Your task to perform on an android device: Open notification settings Image 0: 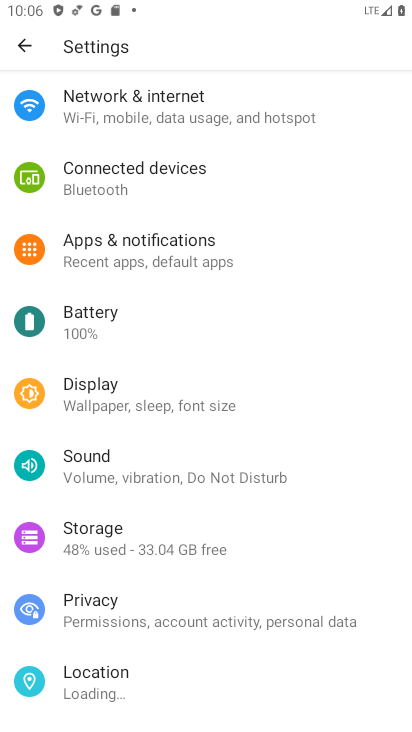
Step 0: click (215, 257)
Your task to perform on an android device: Open notification settings Image 1: 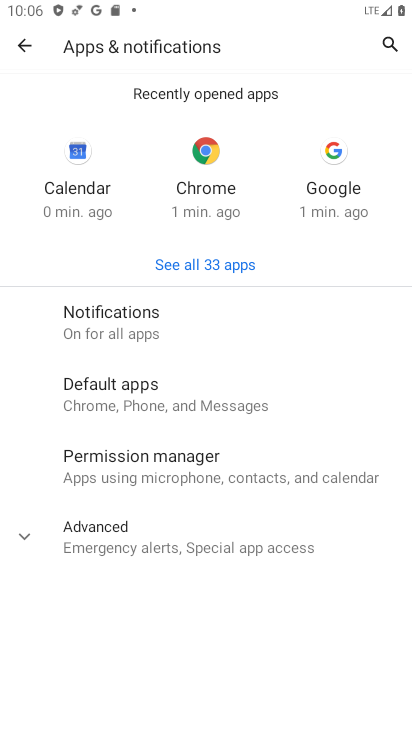
Step 1: click (295, 318)
Your task to perform on an android device: Open notification settings Image 2: 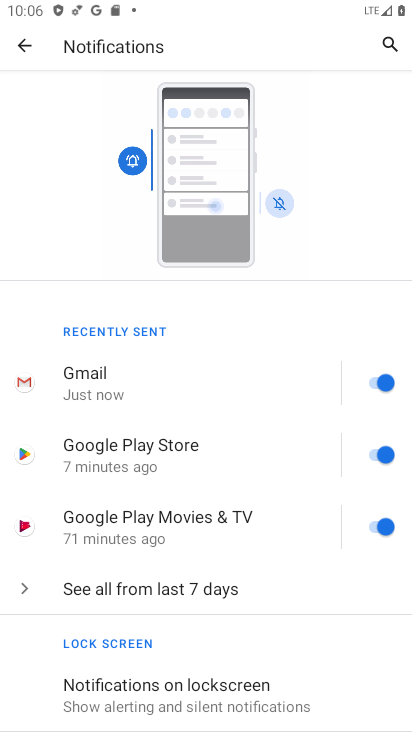
Step 2: task complete